Your task to perform on an android device: Toggle the flashlight Image 0: 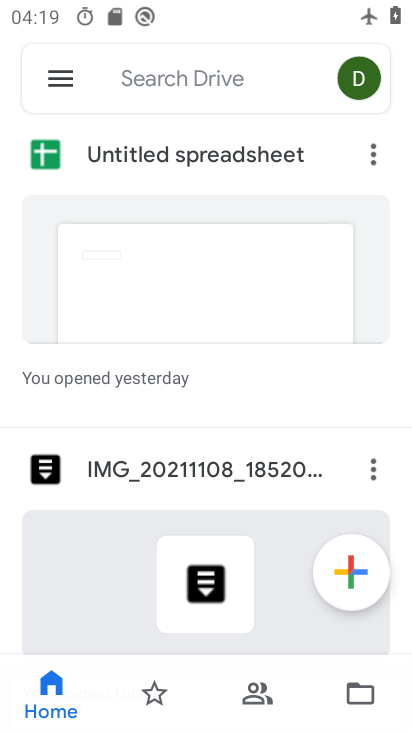
Step 0: press home button
Your task to perform on an android device: Toggle the flashlight Image 1: 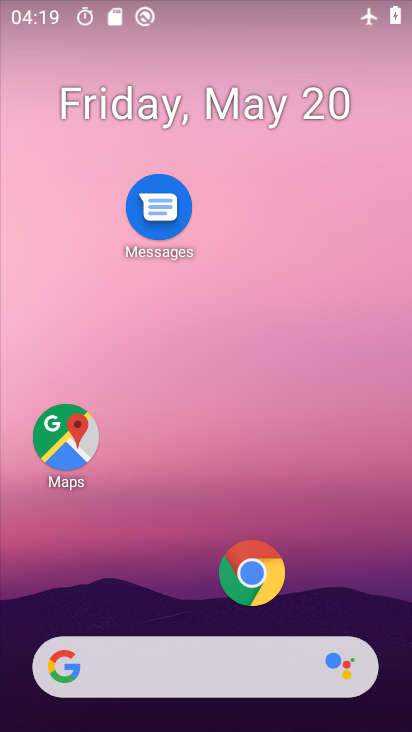
Step 1: drag from (183, 624) to (231, 237)
Your task to perform on an android device: Toggle the flashlight Image 2: 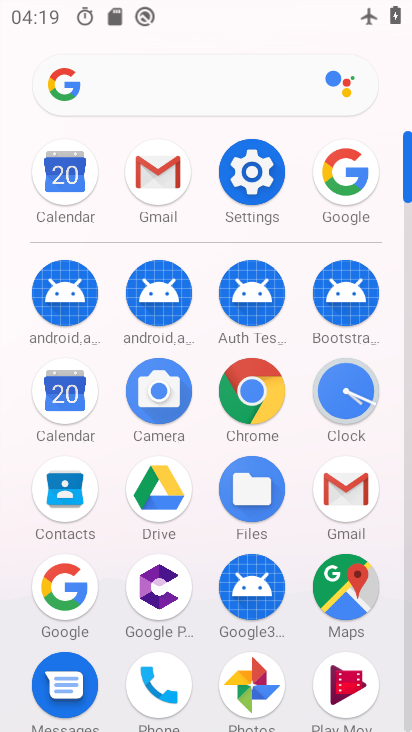
Step 2: click (231, 222)
Your task to perform on an android device: Toggle the flashlight Image 3: 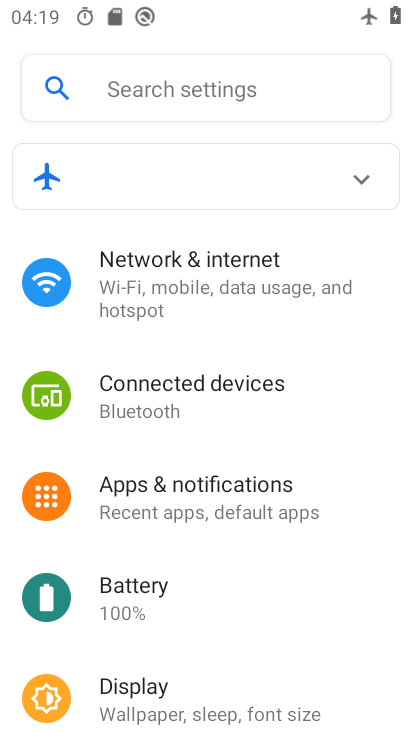
Step 3: task complete